Your task to perform on an android device: change timer sound Image 0: 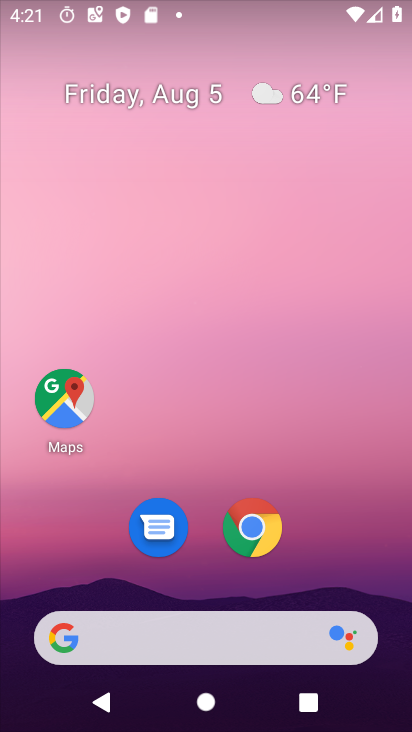
Step 0: press home button
Your task to perform on an android device: change timer sound Image 1: 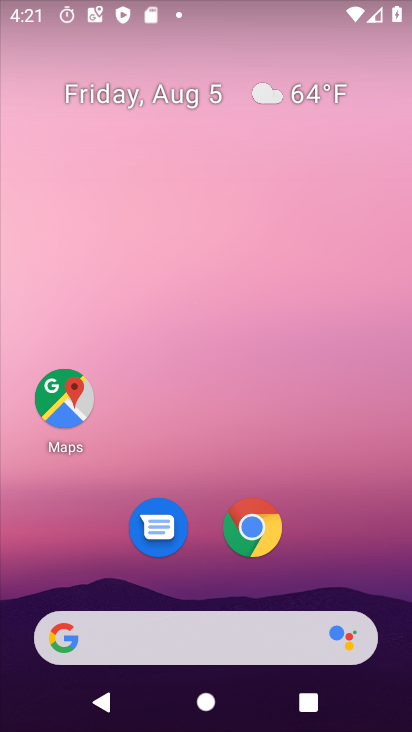
Step 1: drag from (204, 532) to (227, 110)
Your task to perform on an android device: change timer sound Image 2: 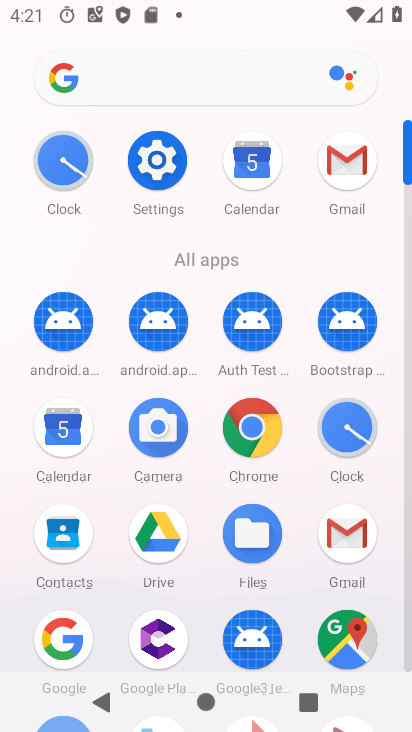
Step 2: click (58, 150)
Your task to perform on an android device: change timer sound Image 3: 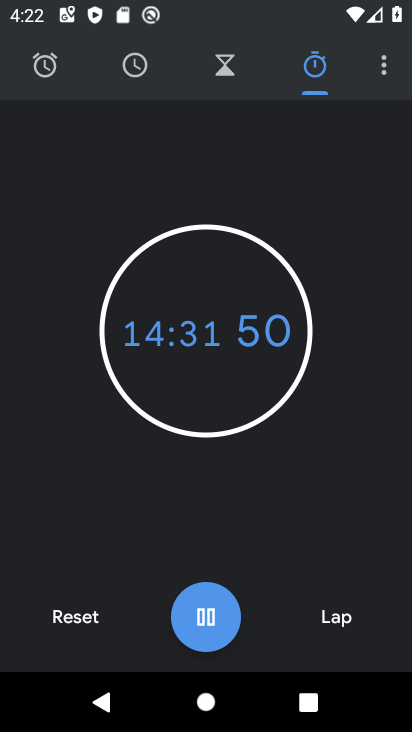
Step 3: click (382, 73)
Your task to perform on an android device: change timer sound Image 4: 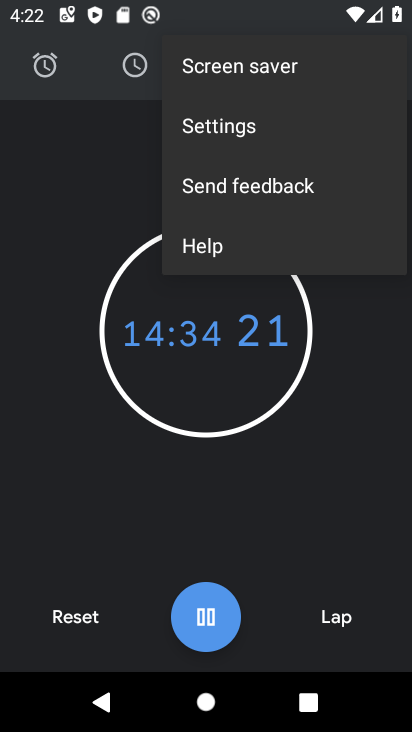
Step 4: click (267, 120)
Your task to perform on an android device: change timer sound Image 5: 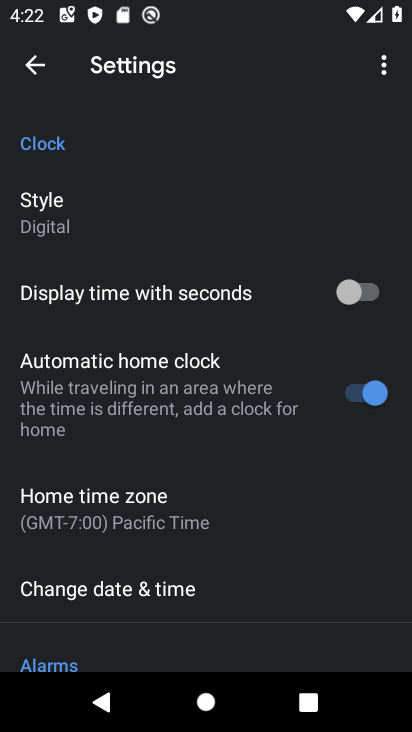
Step 5: drag from (218, 577) to (235, 38)
Your task to perform on an android device: change timer sound Image 6: 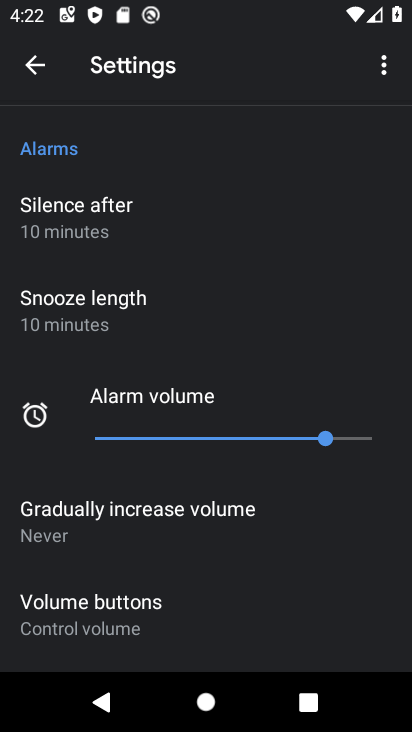
Step 6: drag from (202, 612) to (219, 129)
Your task to perform on an android device: change timer sound Image 7: 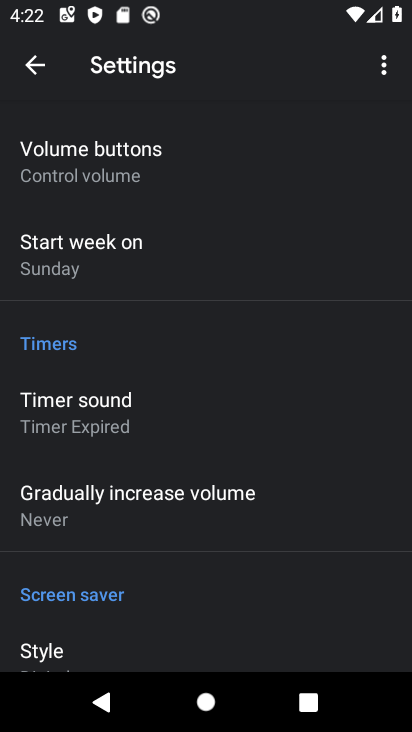
Step 7: click (152, 406)
Your task to perform on an android device: change timer sound Image 8: 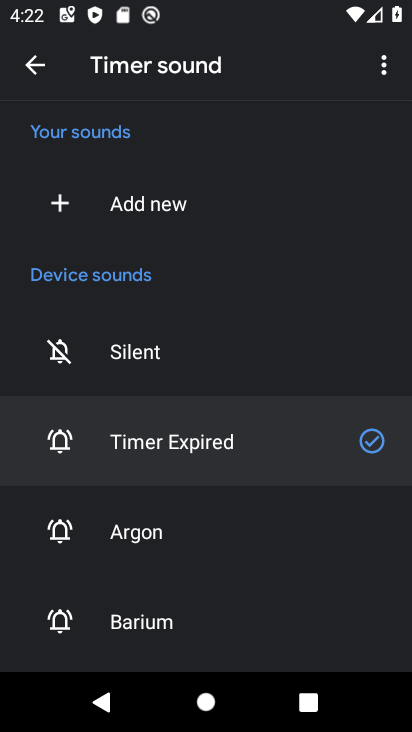
Step 8: click (172, 542)
Your task to perform on an android device: change timer sound Image 9: 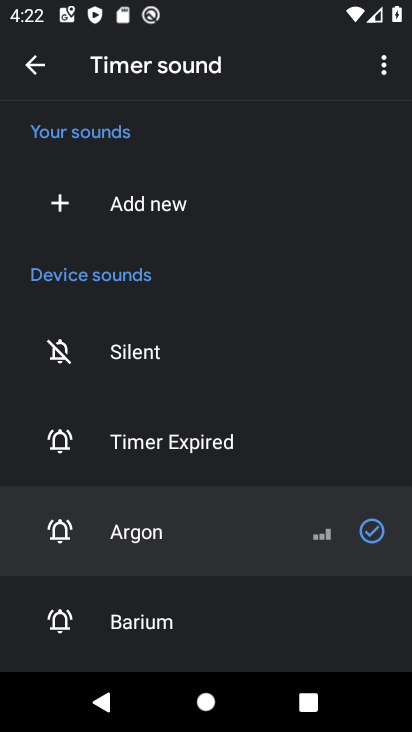
Step 9: task complete